Your task to perform on an android device: Toggle the flashlight Image 0: 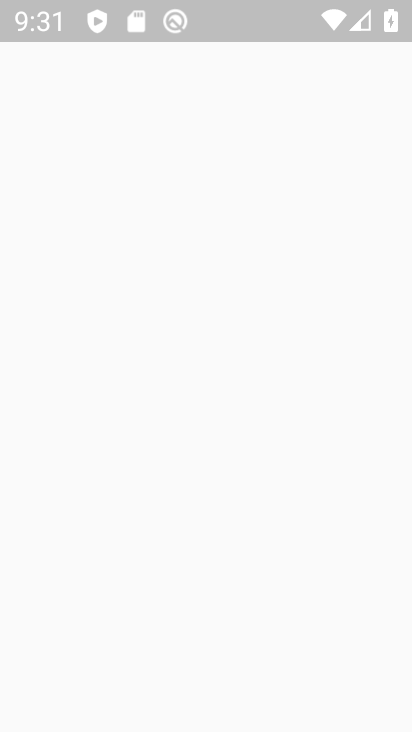
Step 0: press home button
Your task to perform on an android device: Toggle the flashlight Image 1: 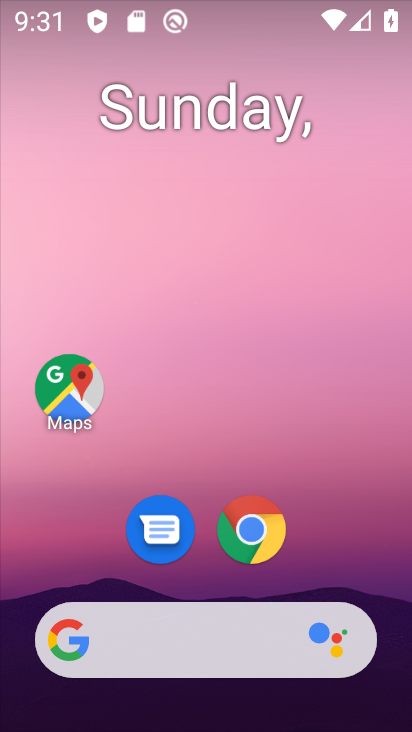
Step 1: task complete